Your task to perform on an android device: Open the calendar and show me this week's events? Image 0: 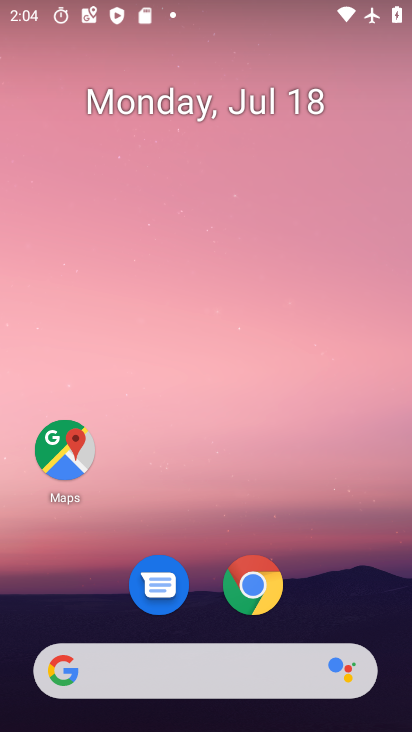
Step 0: press home button
Your task to perform on an android device: Open the calendar and show me this week's events? Image 1: 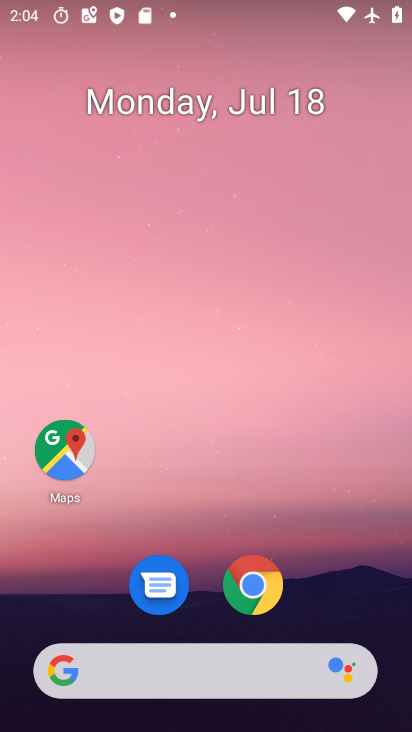
Step 1: drag from (182, 680) to (231, 247)
Your task to perform on an android device: Open the calendar and show me this week's events? Image 2: 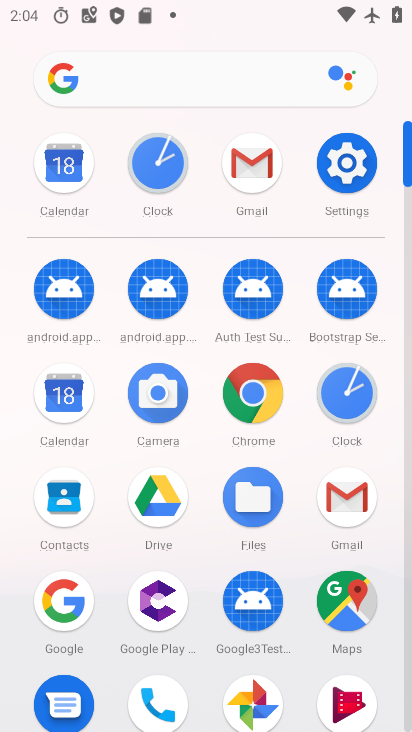
Step 2: click (69, 402)
Your task to perform on an android device: Open the calendar and show me this week's events? Image 3: 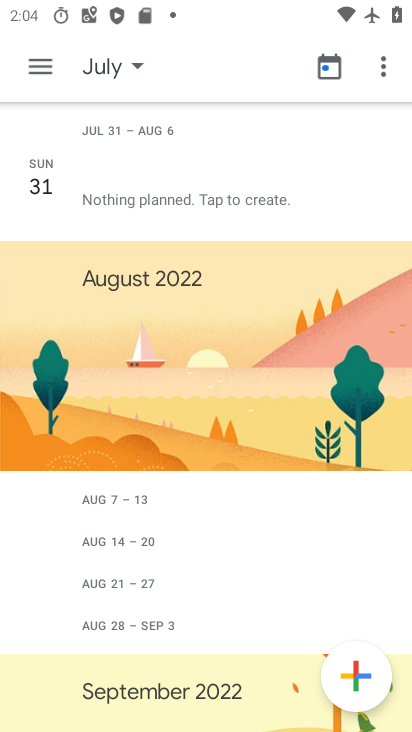
Step 3: click (102, 63)
Your task to perform on an android device: Open the calendar and show me this week's events? Image 4: 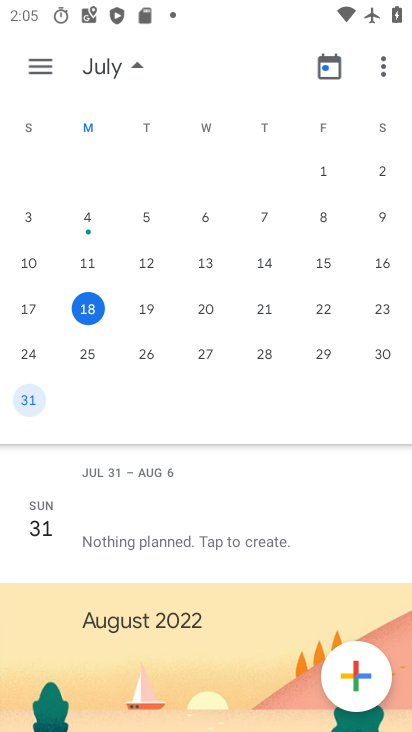
Step 4: click (95, 310)
Your task to perform on an android device: Open the calendar and show me this week's events? Image 5: 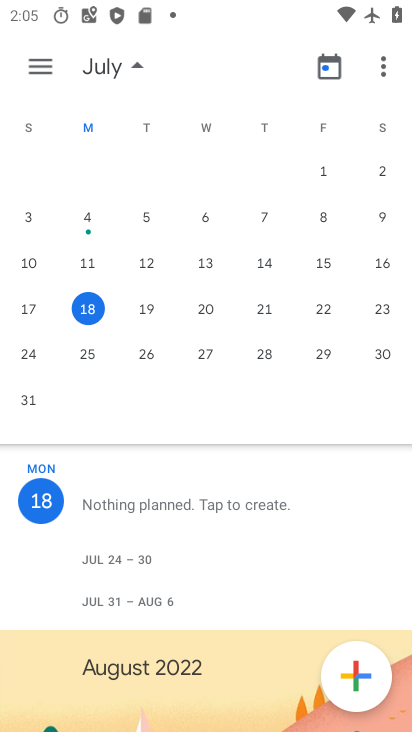
Step 5: click (35, 65)
Your task to perform on an android device: Open the calendar and show me this week's events? Image 6: 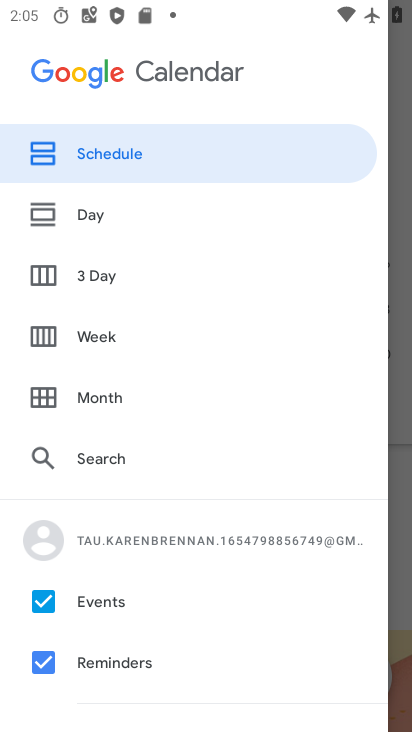
Step 6: click (93, 341)
Your task to perform on an android device: Open the calendar and show me this week's events? Image 7: 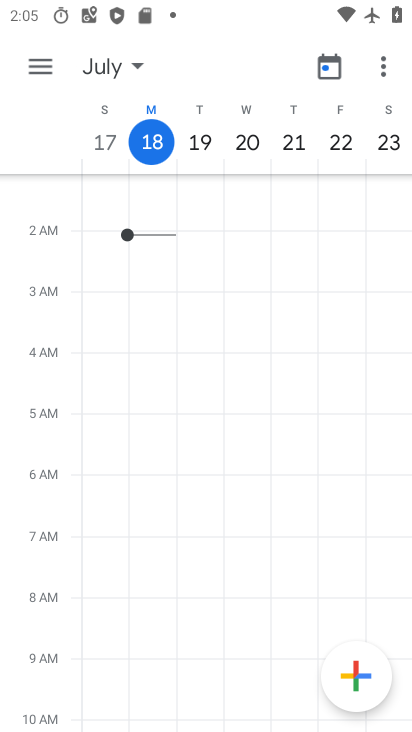
Step 7: task complete